Your task to perform on an android device: Open settings Image 0: 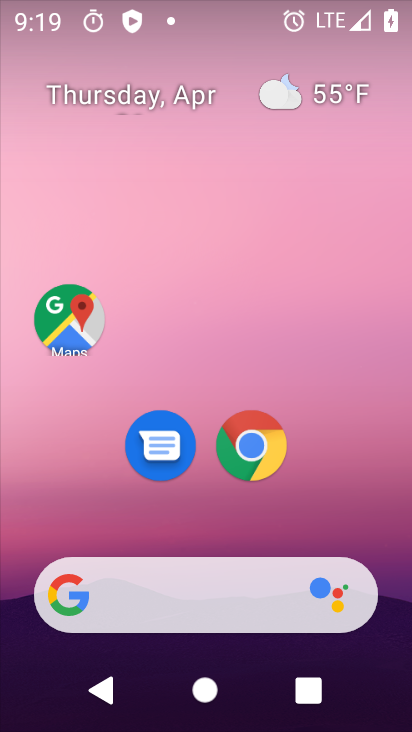
Step 0: drag from (358, 466) to (378, 33)
Your task to perform on an android device: Open settings Image 1: 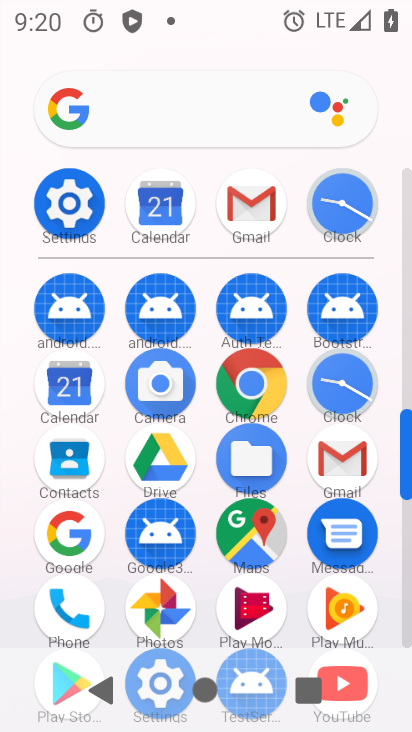
Step 1: click (69, 214)
Your task to perform on an android device: Open settings Image 2: 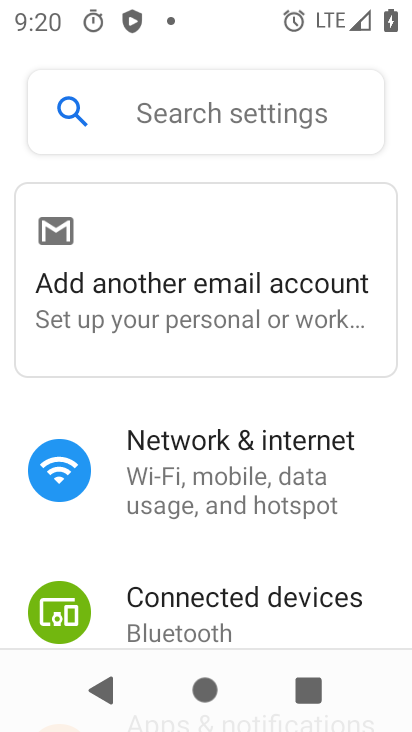
Step 2: task complete